Your task to perform on an android device: change your default location settings in chrome Image 0: 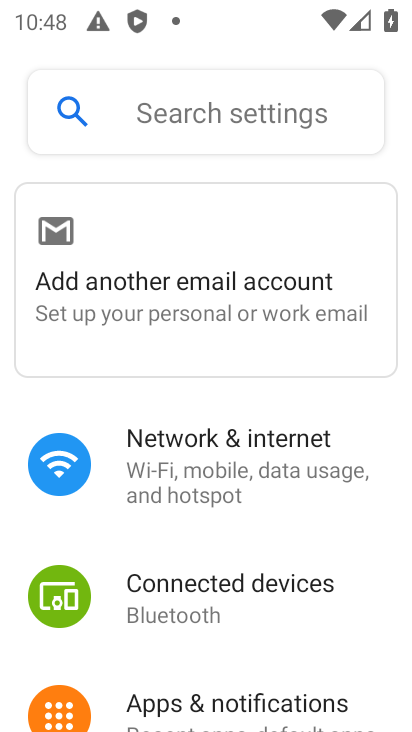
Step 0: press back button
Your task to perform on an android device: change your default location settings in chrome Image 1: 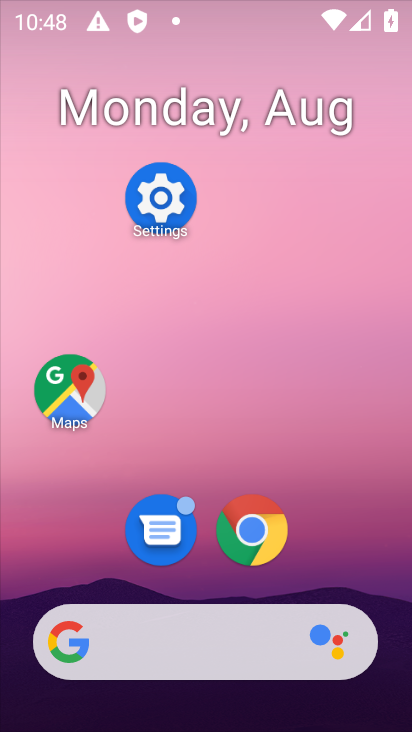
Step 1: drag from (303, 503) to (254, 209)
Your task to perform on an android device: change your default location settings in chrome Image 2: 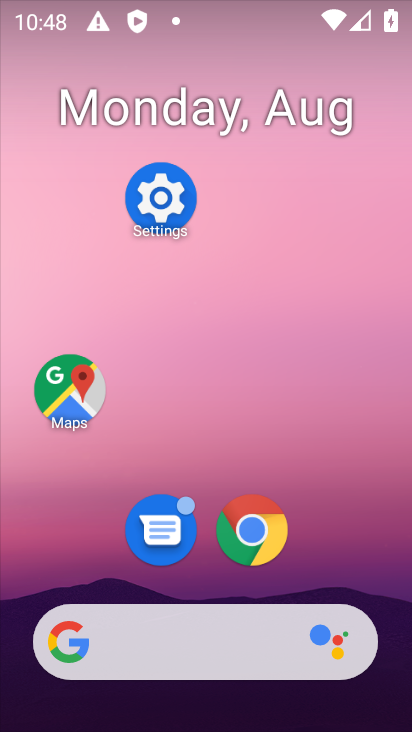
Step 2: drag from (254, 585) to (257, 212)
Your task to perform on an android device: change your default location settings in chrome Image 3: 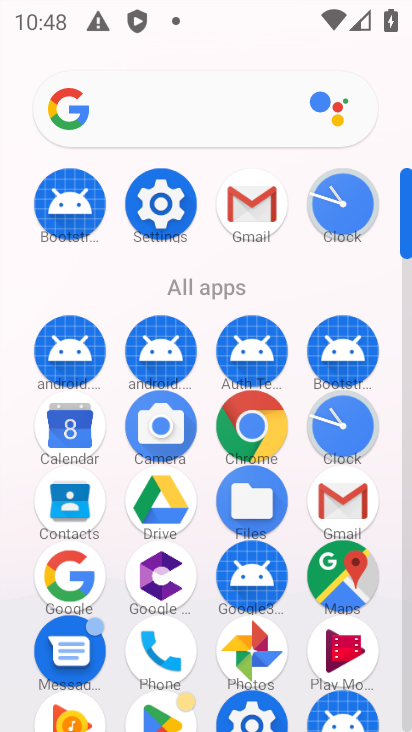
Step 3: click (244, 425)
Your task to perform on an android device: change your default location settings in chrome Image 4: 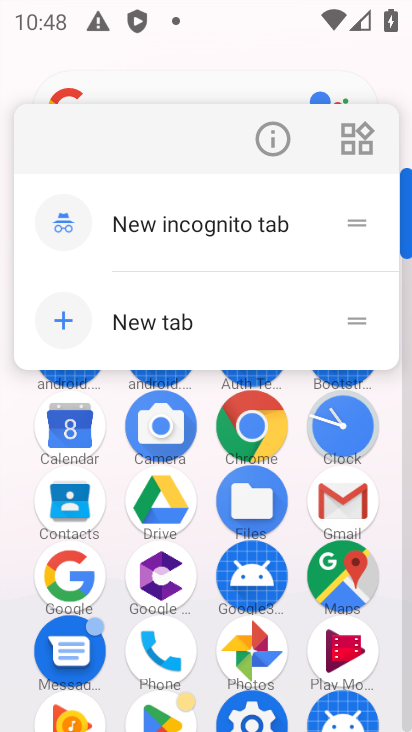
Step 4: click (261, 425)
Your task to perform on an android device: change your default location settings in chrome Image 5: 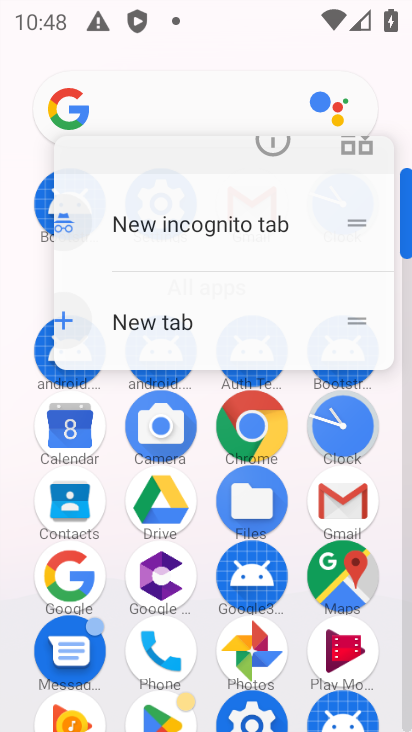
Step 5: click (261, 425)
Your task to perform on an android device: change your default location settings in chrome Image 6: 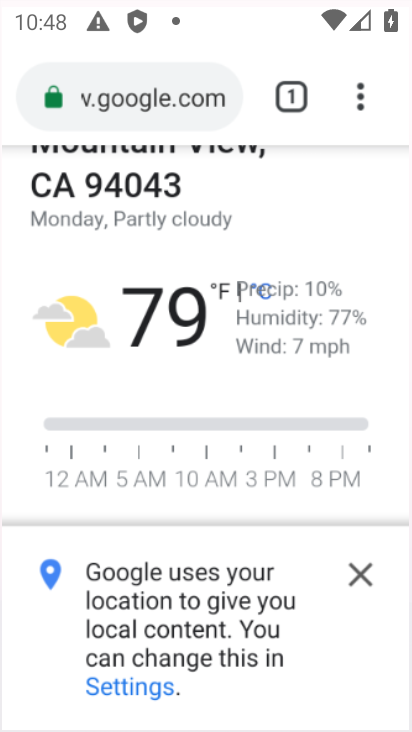
Step 6: click (260, 427)
Your task to perform on an android device: change your default location settings in chrome Image 7: 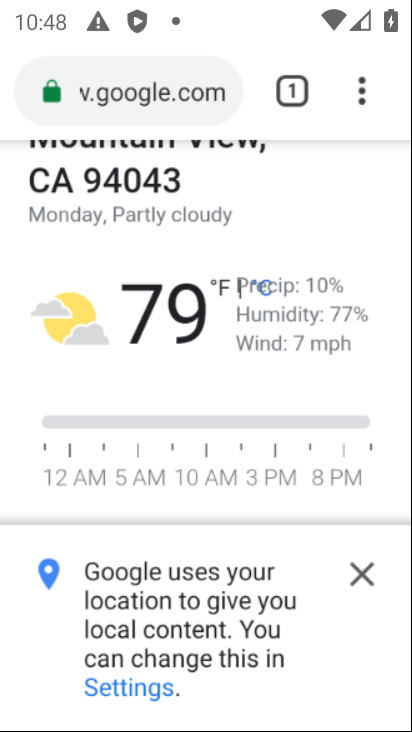
Step 7: click (264, 427)
Your task to perform on an android device: change your default location settings in chrome Image 8: 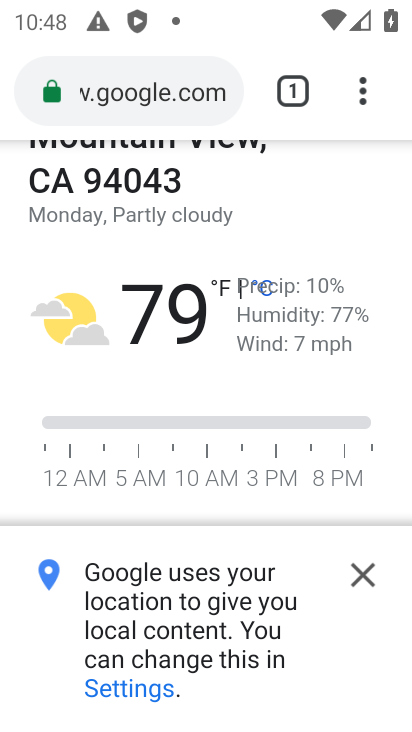
Step 8: drag from (247, 192) to (271, 524)
Your task to perform on an android device: change your default location settings in chrome Image 9: 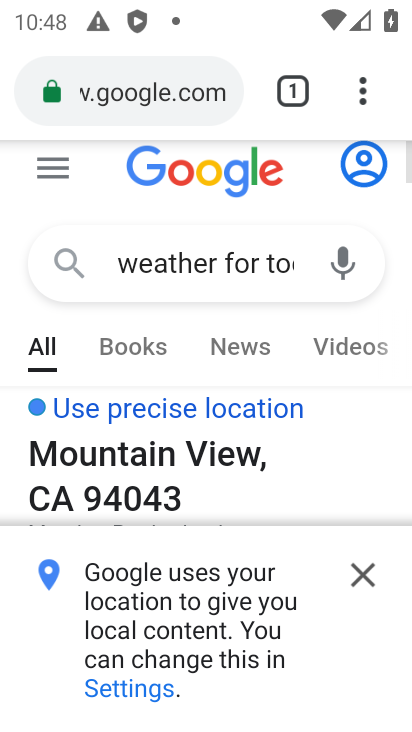
Step 9: press back button
Your task to perform on an android device: change your default location settings in chrome Image 10: 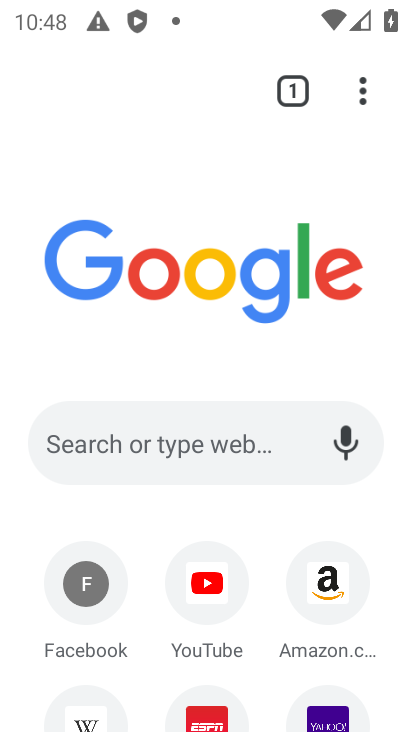
Step 10: drag from (358, 91) to (71, 575)
Your task to perform on an android device: change your default location settings in chrome Image 11: 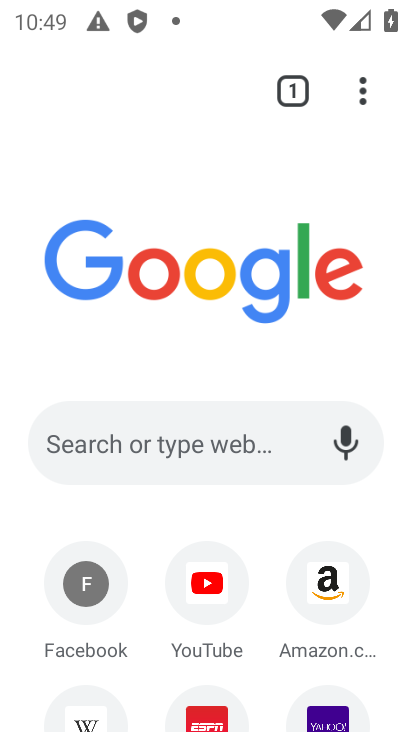
Step 11: click (84, 567)
Your task to perform on an android device: change your default location settings in chrome Image 12: 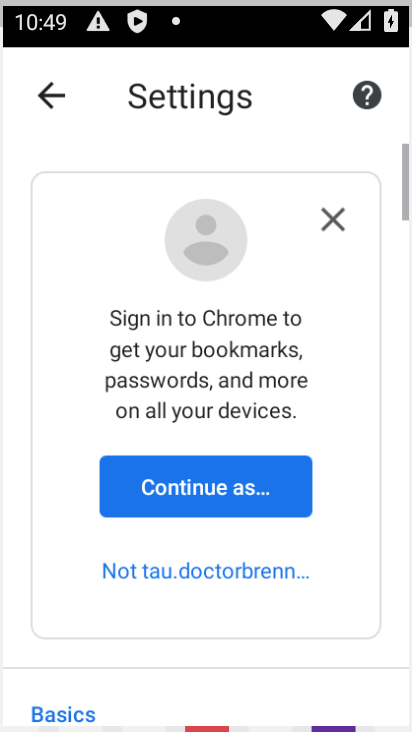
Step 12: click (84, 567)
Your task to perform on an android device: change your default location settings in chrome Image 13: 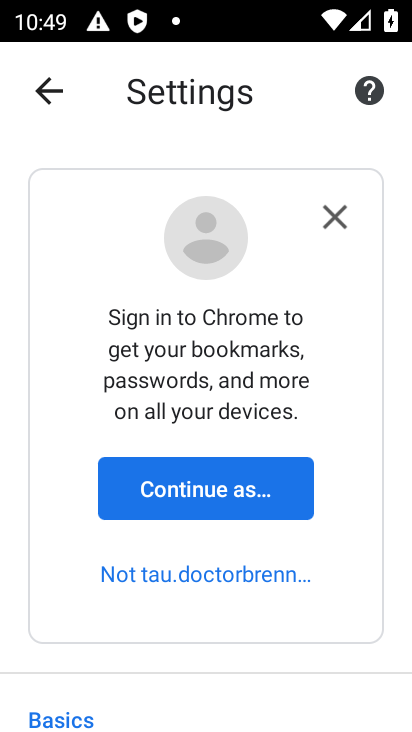
Step 13: click (325, 207)
Your task to perform on an android device: change your default location settings in chrome Image 14: 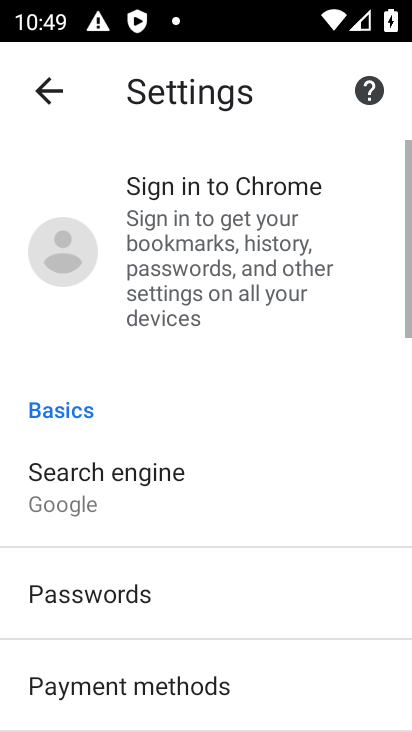
Step 14: drag from (139, 572) to (162, 191)
Your task to perform on an android device: change your default location settings in chrome Image 15: 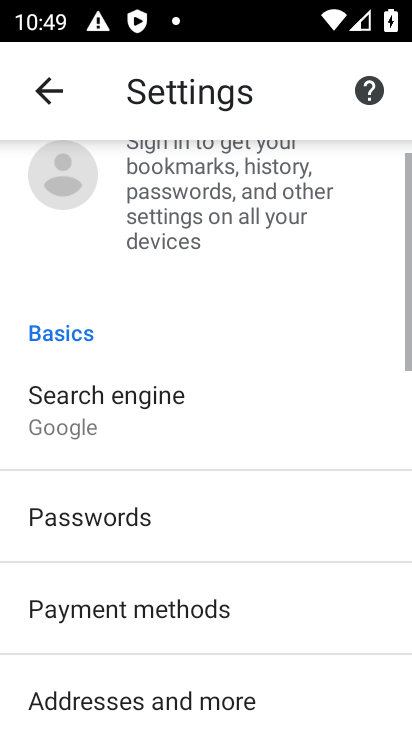
Step 15: drag from (95, 638) to (120, 280)
Your task to perform on an android device: change your default location settings in chrome Image 16: 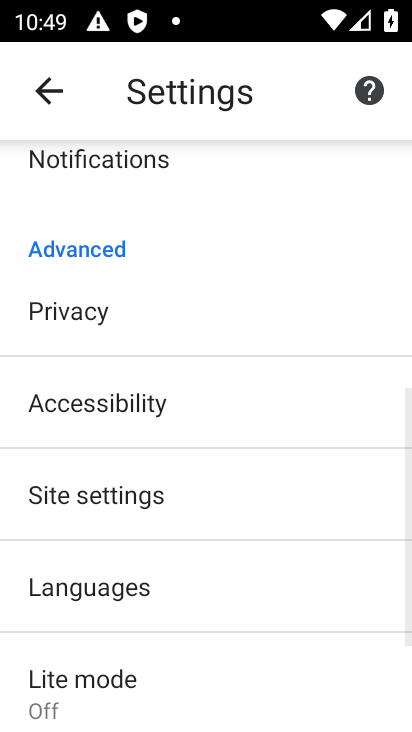
Step 16: drag from (155, 485) to (235, 245)
Your task to perform on an android device: change your default location settings in chrome Image 17: 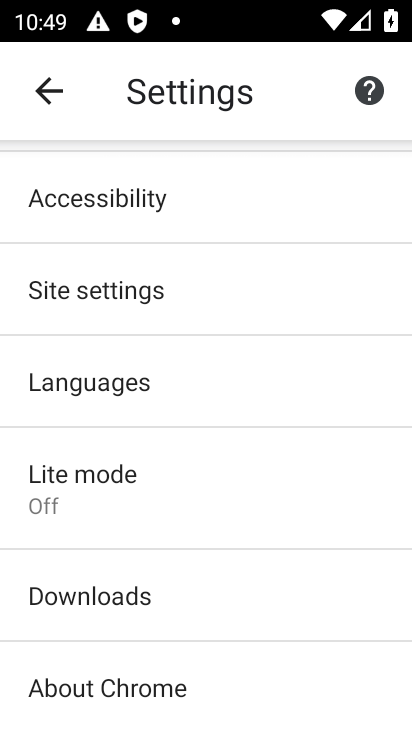
Step 17: click (75, 287)
Your task to perform on an android device: change your default location settings in chrome Image 18: 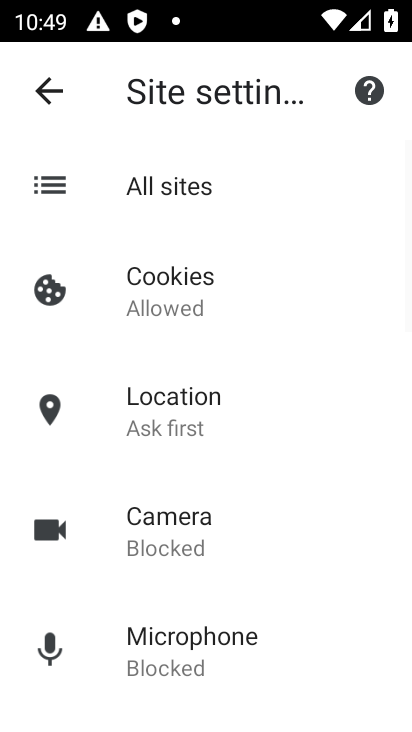
Step 18: click (167, 419)
Your task to perform on an android device: change your default location settings in chrome Image 19: 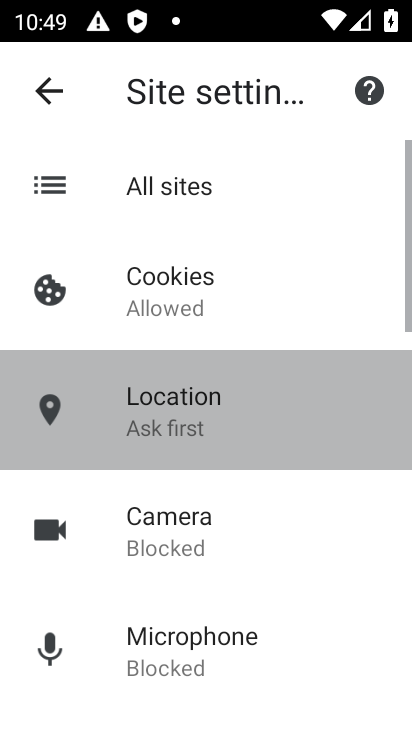
Step 19: click (165, 419)
Your task to perform on an android device: change your default location settings in chrome Image 20: 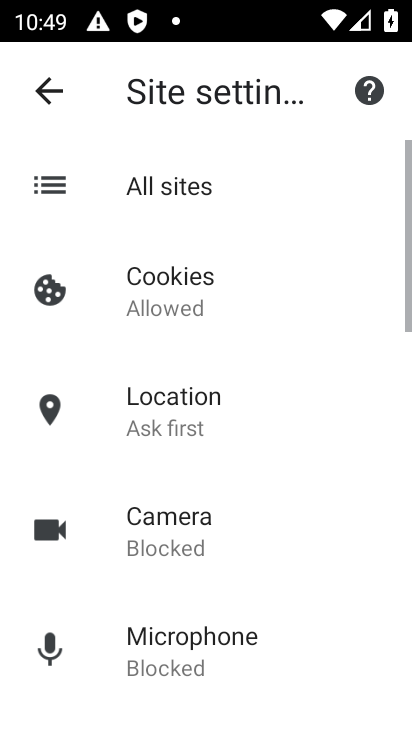
Step 20: click (165, 419)
Your task to perform on an android device: change your default location settings in chrome Image 21: 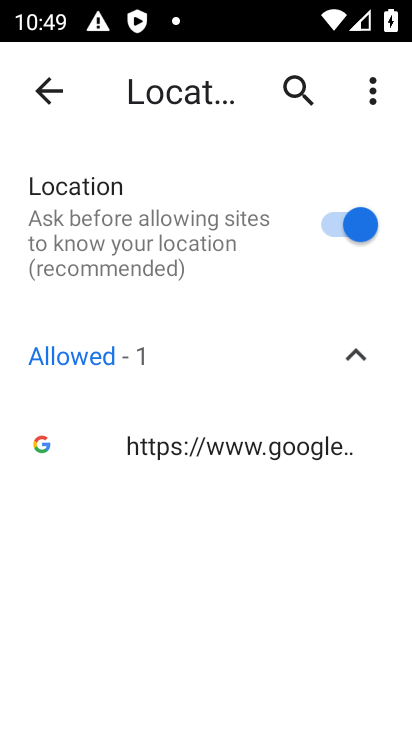
Step 21: click (355, 230)
Your task to perform on an android device: change your default location settings in chrome Image 22: 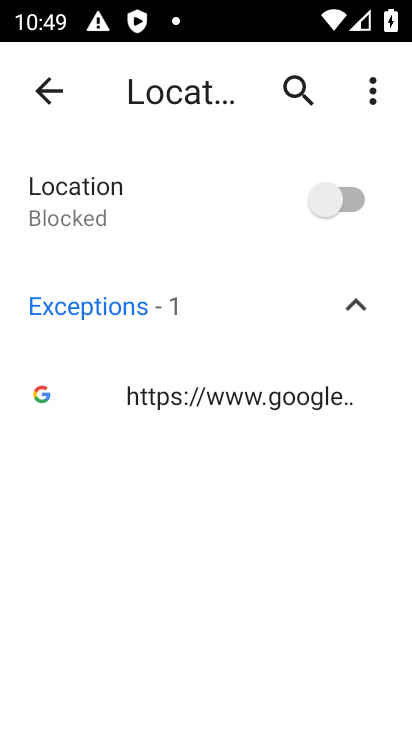
Step 22: task complete